Your task to perform on an android device: turn off javascript in the chrome app Image 0: 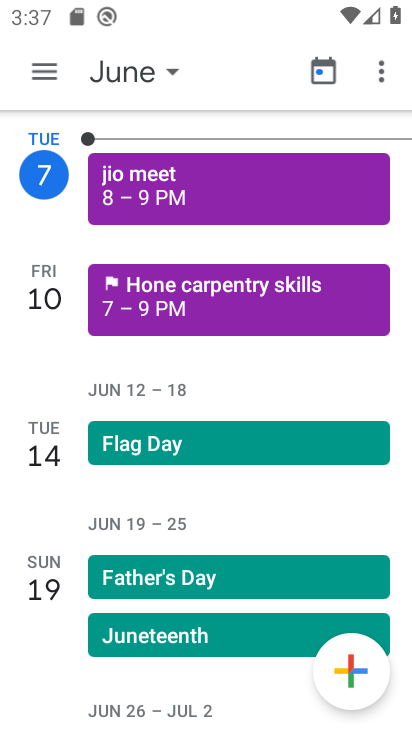
Step 0: press home button
Your task to perform on an android device: turn off javascript in the chrome app Image 1: 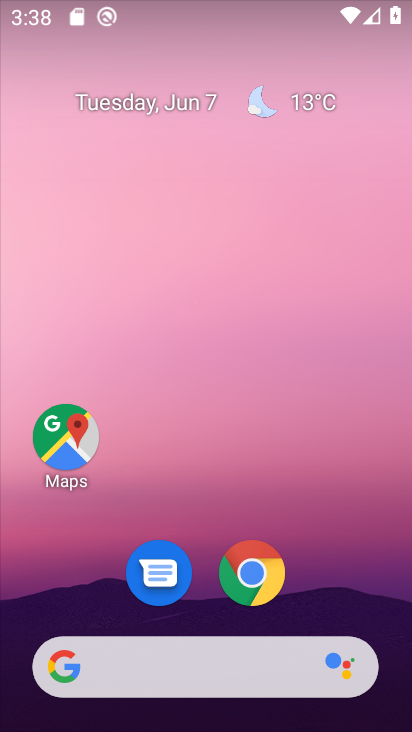
Step 1: drag from (389, 701) to (313, 45)
Your task to perform on an android device: turn off javascript in the chrome app Image 2: 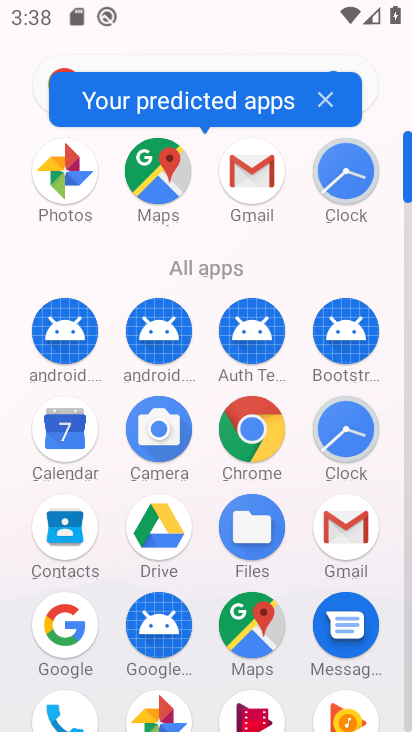
Step 2: drag from (215, 636) to (196, 386)
Your task to perform on an android device: turn off javascript in the chrome app Image 3: 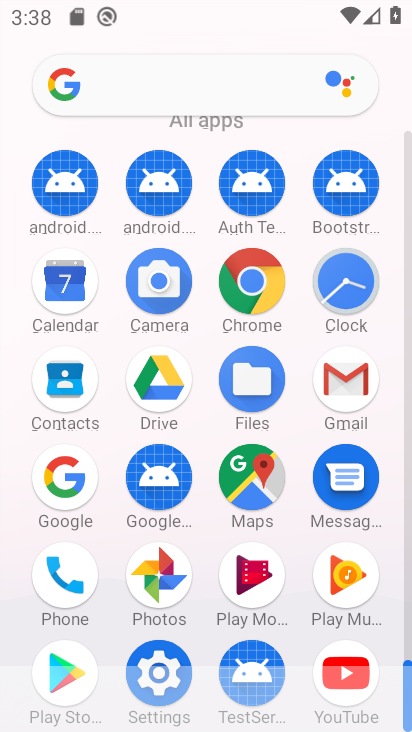
Step 3: drag from (212, 613) to (170, 360)
Your task to perform on an android device: turn off javascript in the chrome app Image 4: 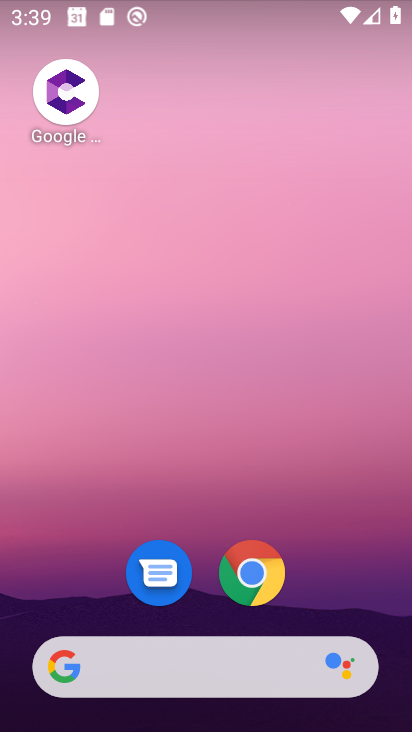
Step 4: click (270, 592)
Your task to perform on an android device: turn off javascript in the chrome app Image 5: 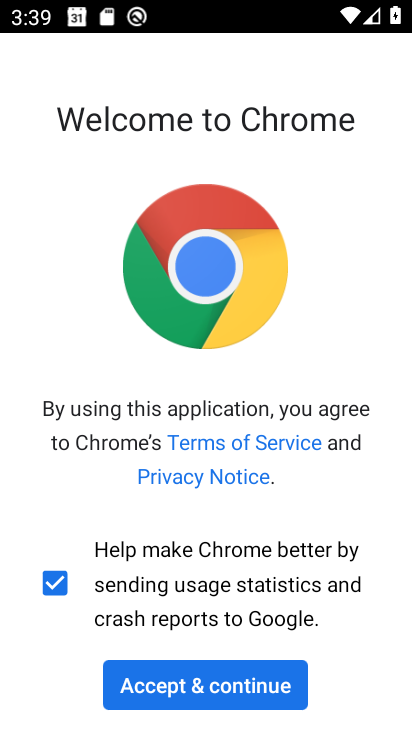
Step 5: click (257, 662)
Your task to perform on an android device: turn off javascript in the chrome app Image 6: 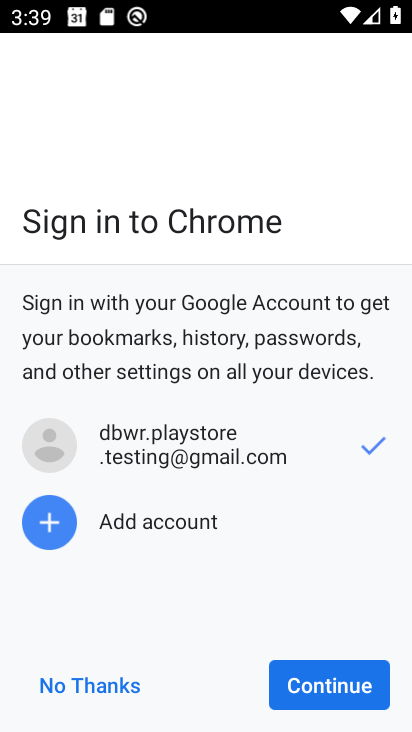
Step 6: click (369, 680)
Your task to perform on an android device: turn off javascript in the chrome app Image 7: 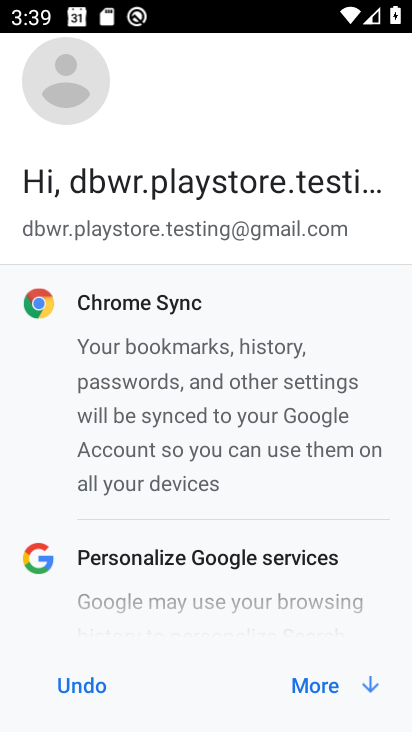
Step 7: click (369, 680)
Your task to perform on an android device: turn off javascript in the chrome app Image 8: 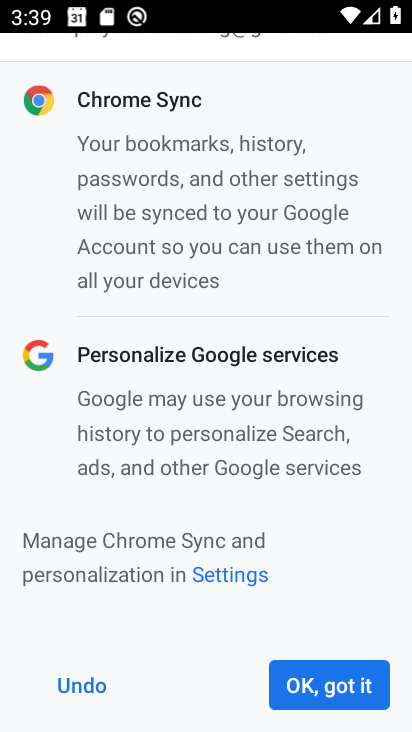
Step 8: click (360, 681)
Your task to perform on an android device: turn off javascript in the chrome app Image 9: 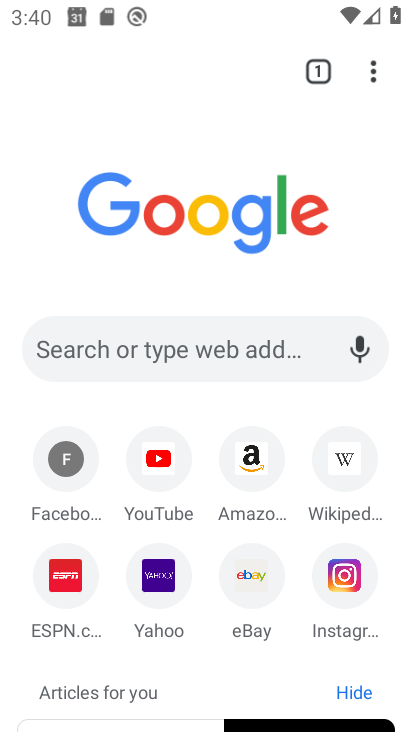
Step 9: drag from (373, 79) to (157, 591)
Your task to perform on an android device: turn off javascript in the chrome app Image 10: 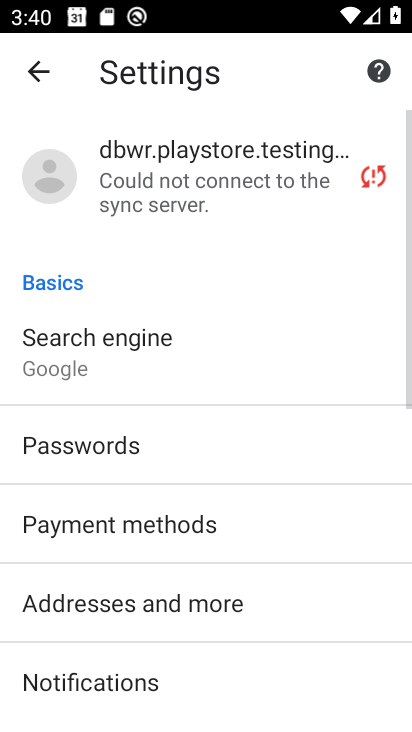
Step 10: drag from (249, 631) to (253, 168)
Your task to perform on an android device: turn off javascript in the chrome app Image 11: 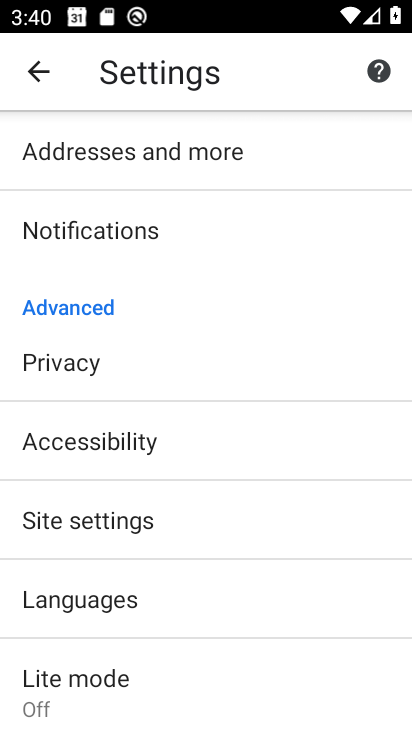
Step 11: click (103, 529)
Your task to perform on an android device: turn off javascript in the chrome app Image 12: 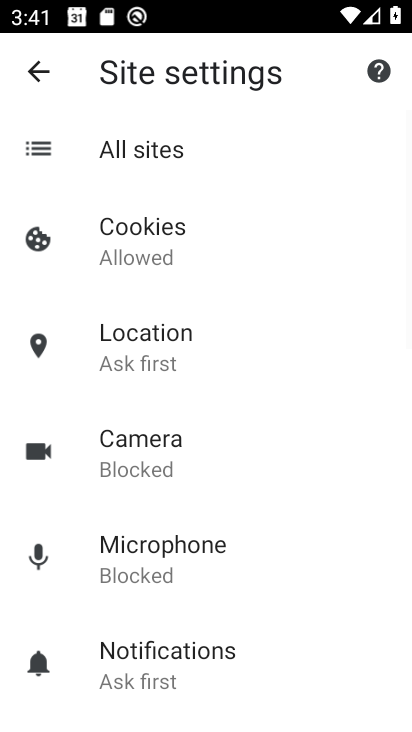
Step 12: drag from (290, 565) to (262, 422)
Your task to perform on an android device: turn off javascript in the chrome app Image 13: 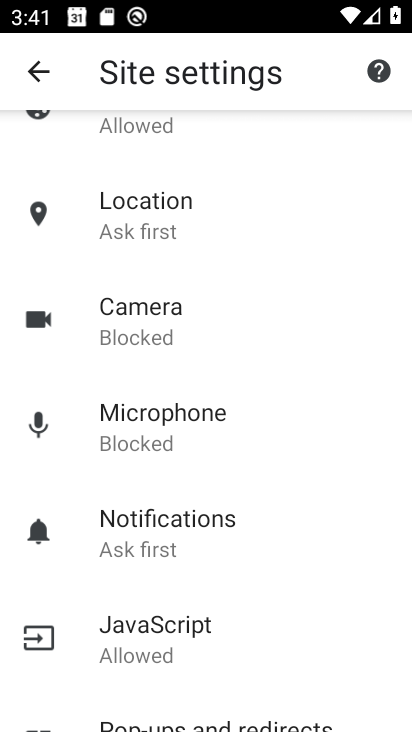
Step 13: click (192, 629)
Your task to perform on an android device: turn off javascript in the chrome app Image 14: 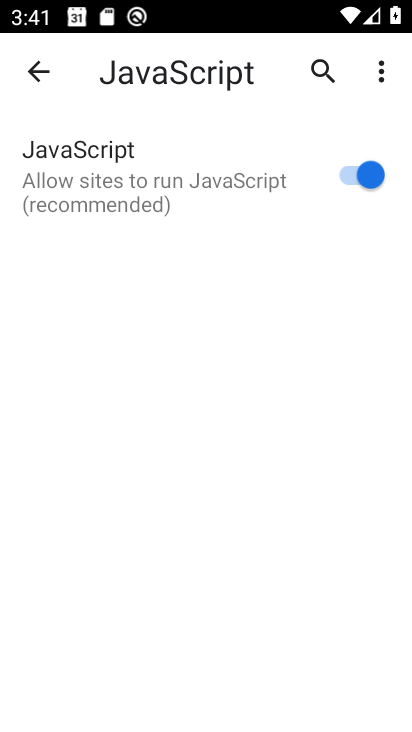
Step 14: click (221, 176)
Your task to perform on an android device: turn off javascript in the chrome app Image 15: 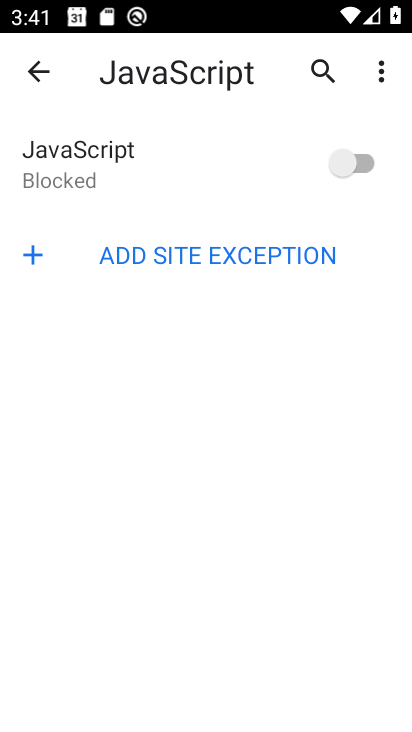
Step 15: task complete